Your task to perform on an android device: refresh tabs in the chrome app Image 0: 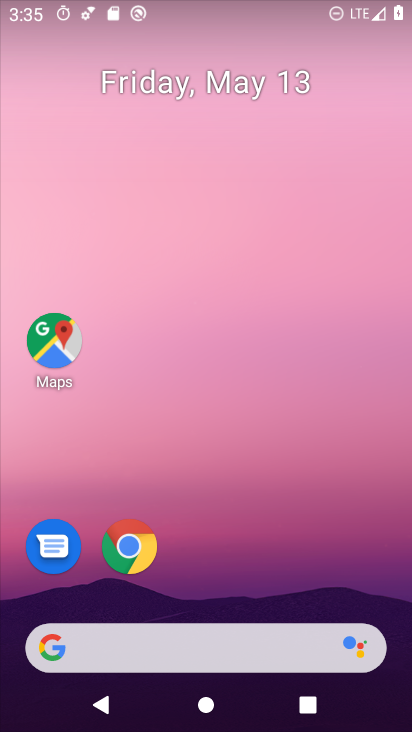
Step 0: drag from (196, 691) to (171, 389)
Your task to perform on an android device: refresh tabs in the chrome app Image 1: 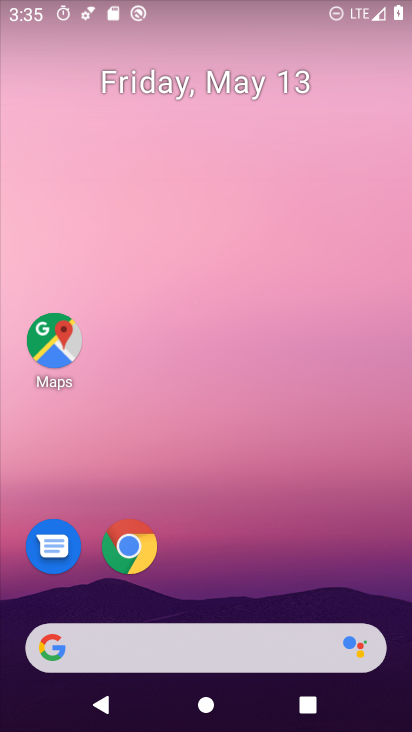
Step 1: click (145, 554)
Your task to perform on an android device: refresh tabs in the chrome app Image 2: 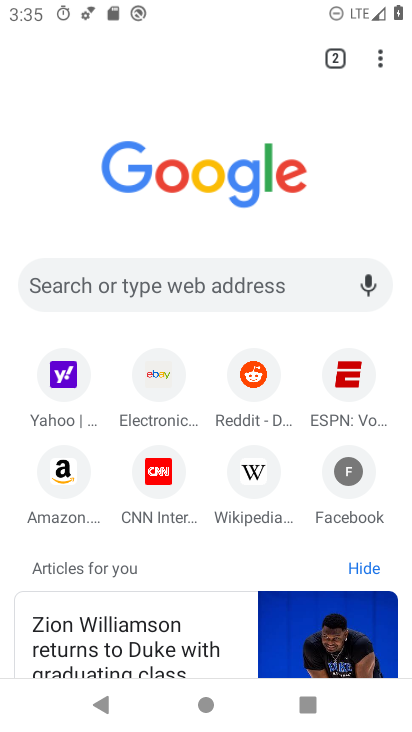
Step 2: click (376, 72)
Your task to perform on an android device: refresh tabs in the chrome app Image 3: 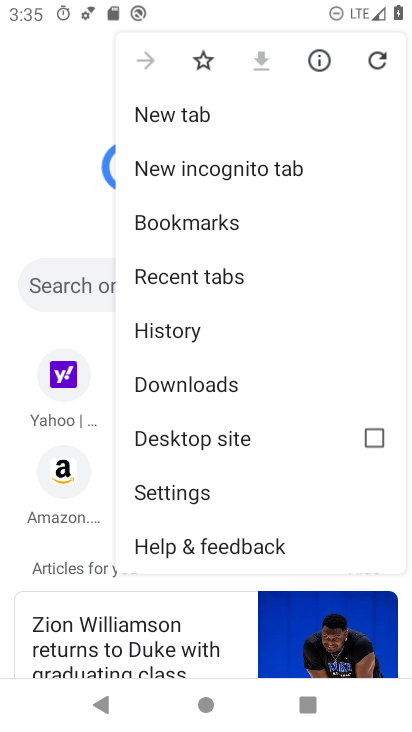
Step 3: click (375, 62)
Your task to perform on an android device: refresh tabs in the chrome app Image 4: 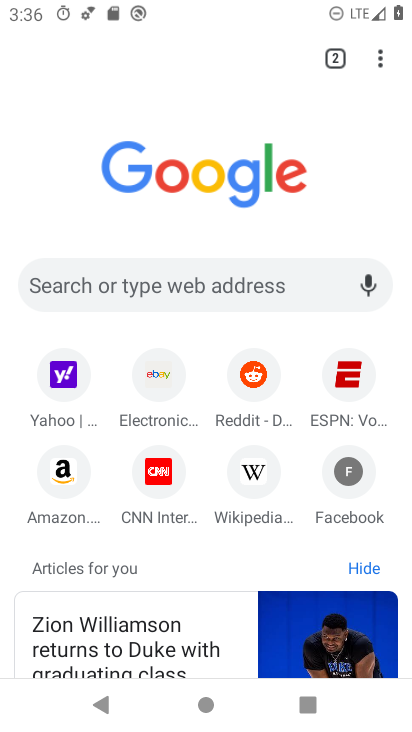
Step 4: task complete